Your task to perform on an android device: toggle javascript in the chrome app Image 0: 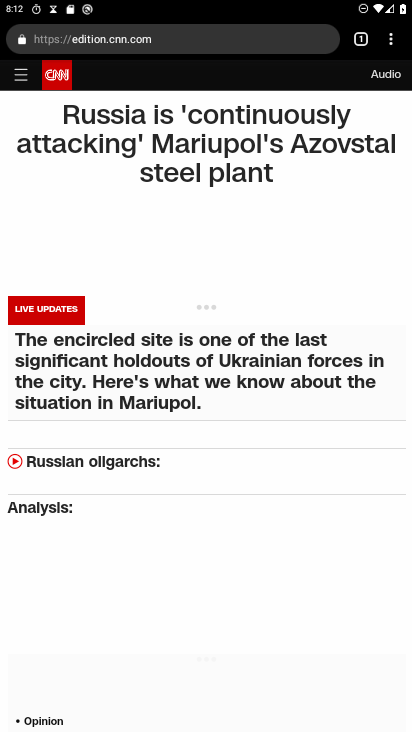
Step 0: drag from (399, 38) to (285, 440)
Your task to perform on an android device: toggle javascript in the chrome app Image 1: 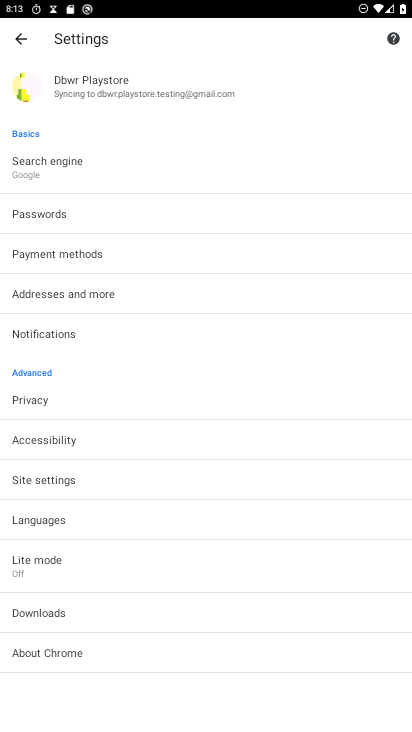
Step 1: click (72, 479)
Your task to perform on an android device: toggle javascript in the chrome app Image 2: 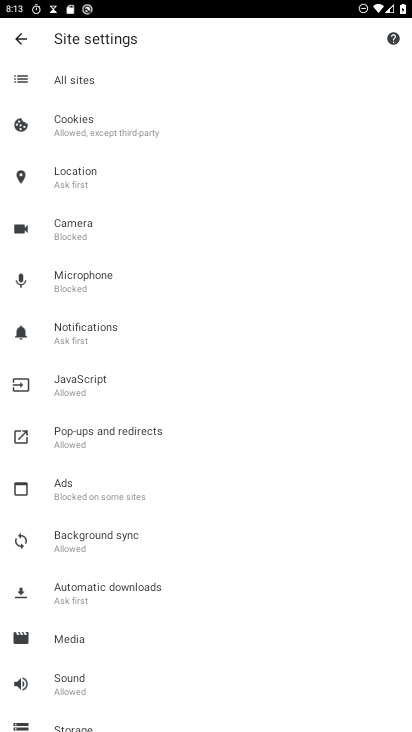
Step 2: click (98, 374)
Your task to perform on an android device: toggle javascript in the chrome app Image 3: 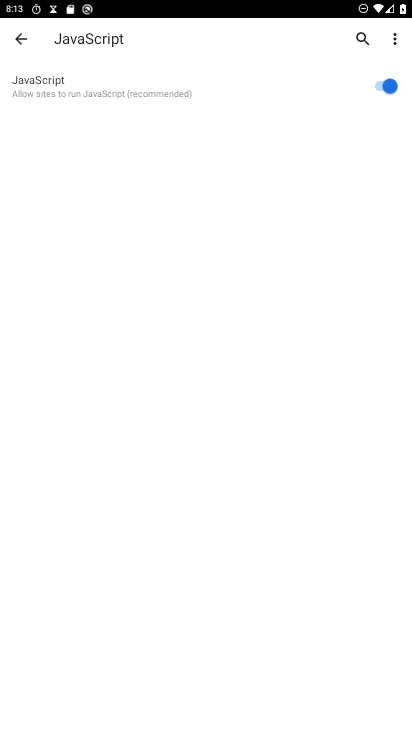
Step 3: click (385, 94)
Your task to perform on an android device: toggle javascript in the chrome app Image 4: 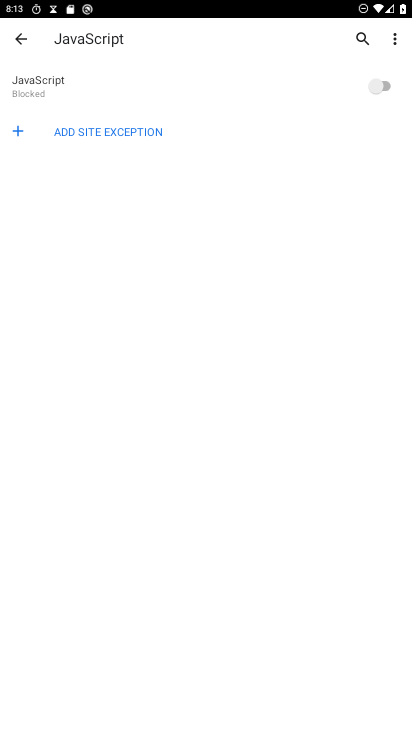
Step 4: task complete